Your task to perform on an android device: Open calendar and show me the fourth week of next month Image 0: 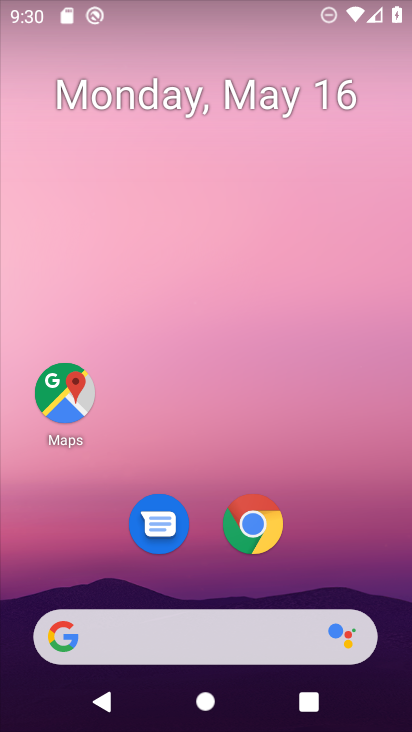
Step 0: drag from (332, 536) to (286, 63)
Your task to perform on an android device: Open calendar and show me the fourth week of next month Image 1: 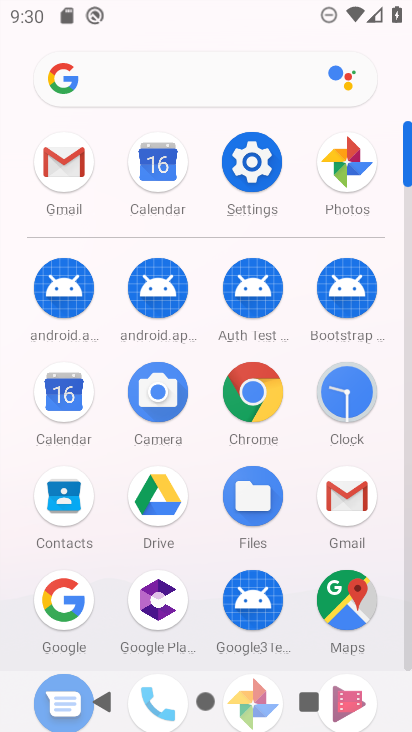
Step 1: click (158, 156)
Your task to perform on an android device: Open calendar and show me the fourth week of next month Image 2: 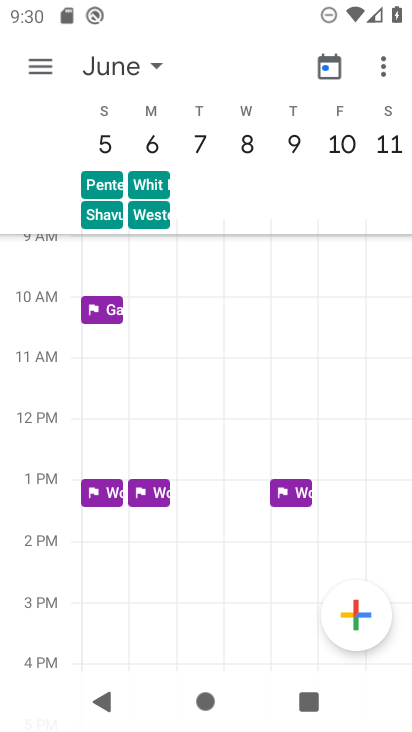
Step 2: task complete